Your task to perform on an android device: What's the weather today? Image 0: 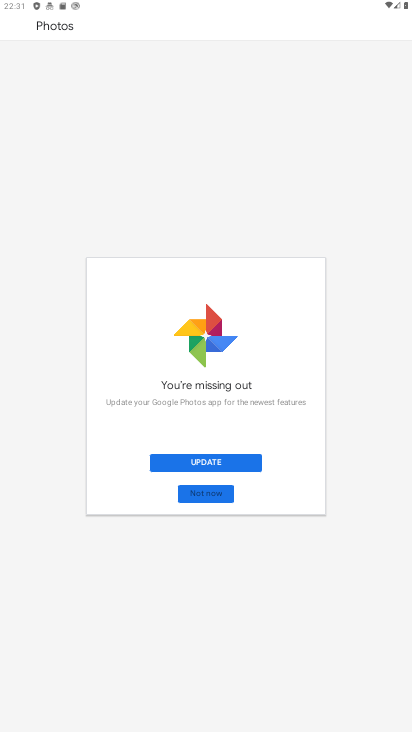
Step 0: click (213, 506)
Your task to perform on an android device: What's the weather today? Image 1: 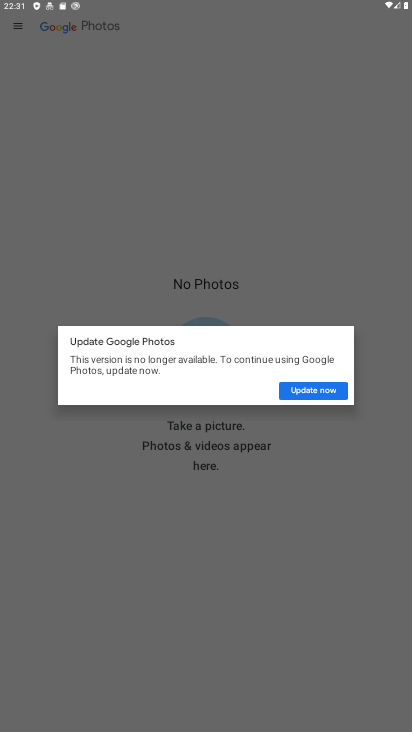
Step 1: click (200, 164)
Your task to perform on an android device: What's the weather today? Image 2: 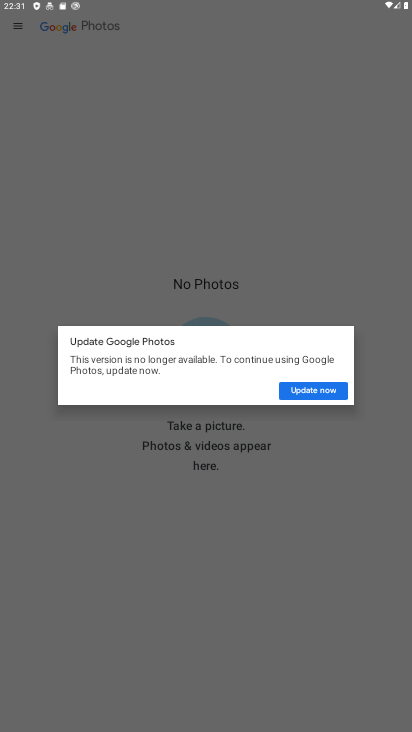
Step 2: click (157, 91)
Your task to perform on an android device: What's the weather today? Image 3: 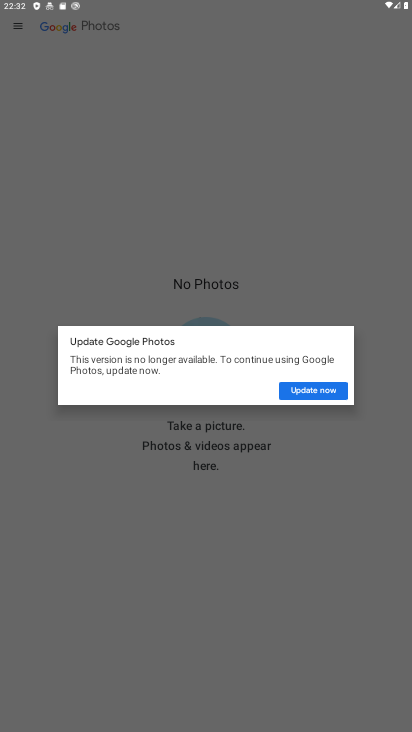
Step 3: press back button
Your task to perform on an android device: What's the weather today? Image 4: 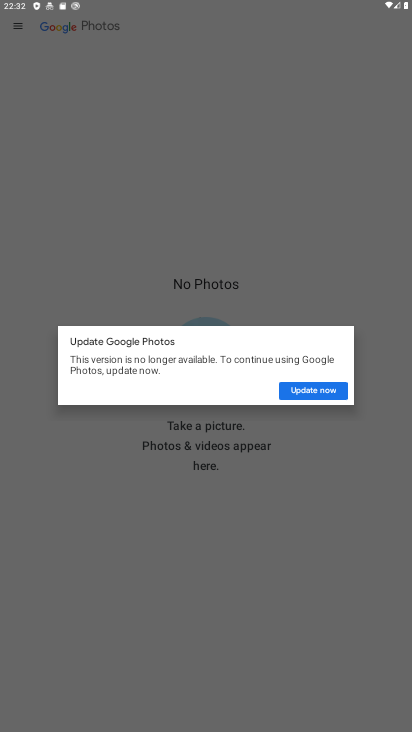
Step 4: press home button
Your task to perform on an android device: What's the weather today? Image 5: 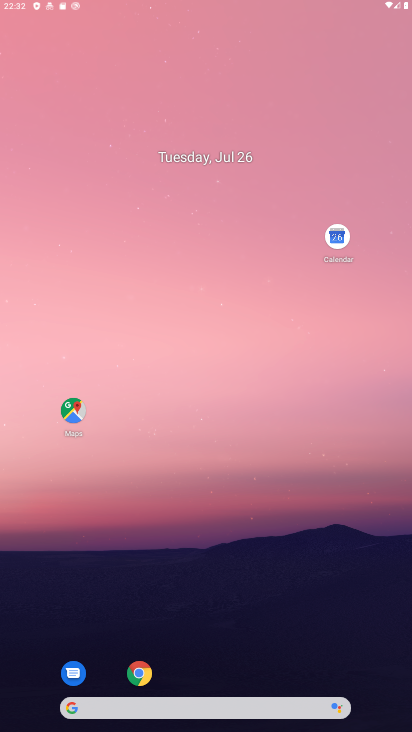
Step 5: click (73, 179)
Your task to perform on an android device: What's the weather today? Image 6: 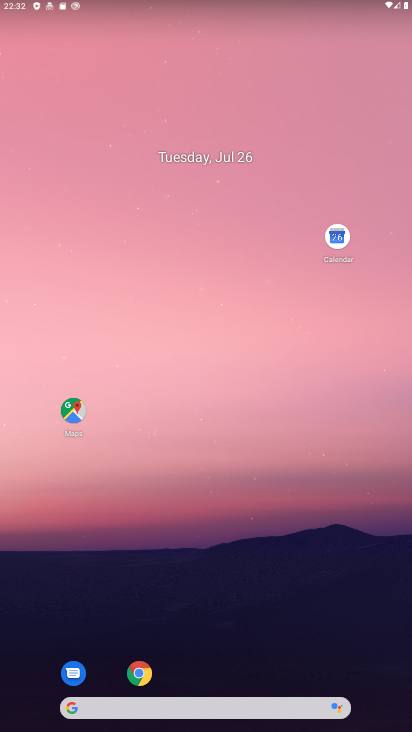
Step 6: drag from (276, 567) to (139, 39)
Your task to perform on an android device: What's the weather today? Image 7: 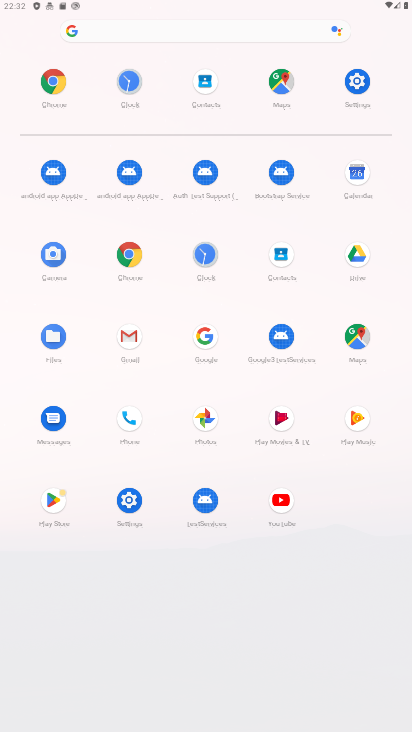
Step 7: click (48, 85)
Your task to perform on an android device: What's the weather today? Image 8: 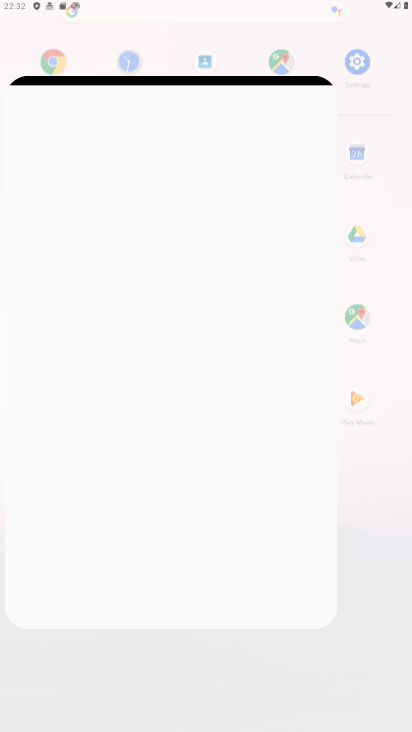
Step 8: click (47, 81)
Your task to perform on an android device: What's the weather today? Image 9: 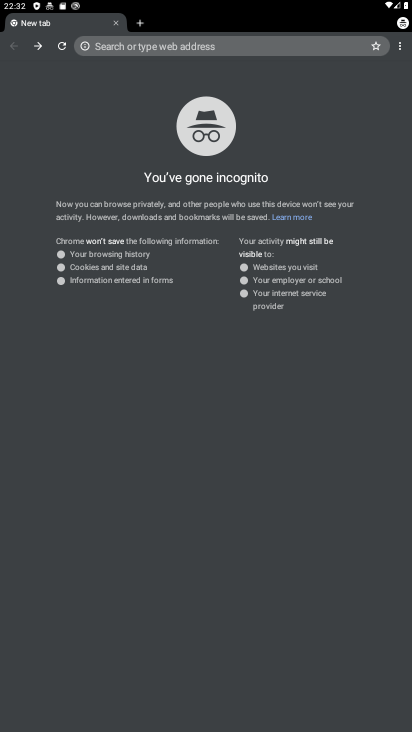
Step 9: click (47, 81)
Your task to perform on an android device: What's the weather today? Image 10: 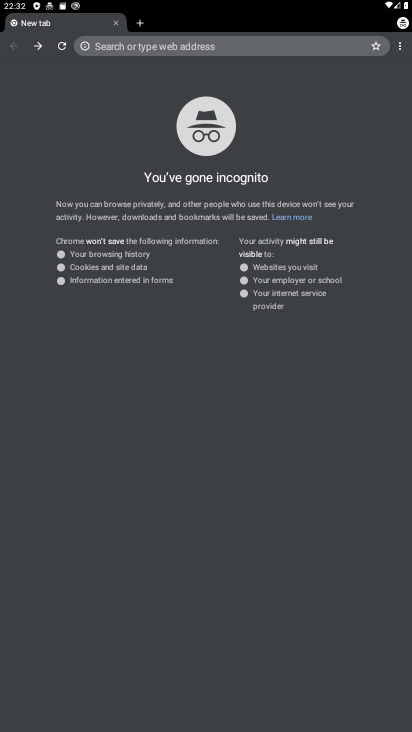
Step 10: click (114, 48)
Your task to perform on an android device: What's the weather today? Image 11: 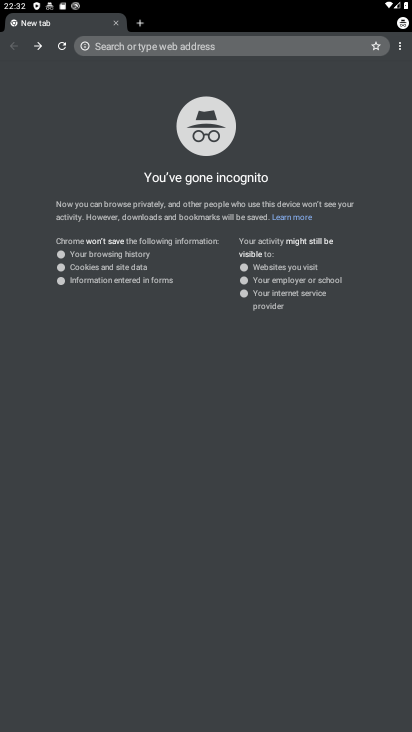
Step 11: click (114, 48)
Your task to perform on an android device: What's the weather today? Image 12: 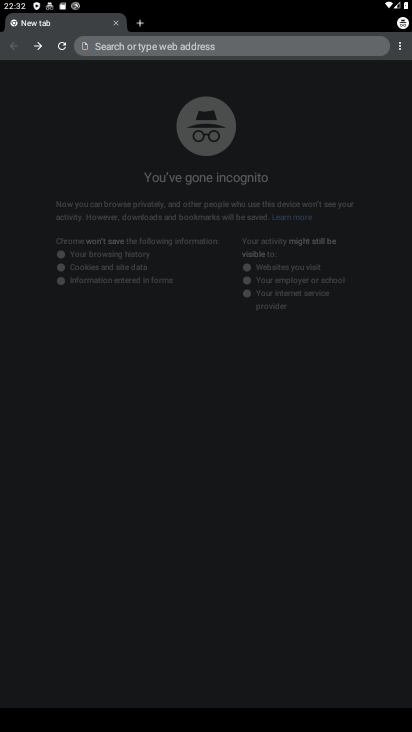
Step 12: click (118, 43)
Your task to perform on an android device: What's the weather today? Image 13: 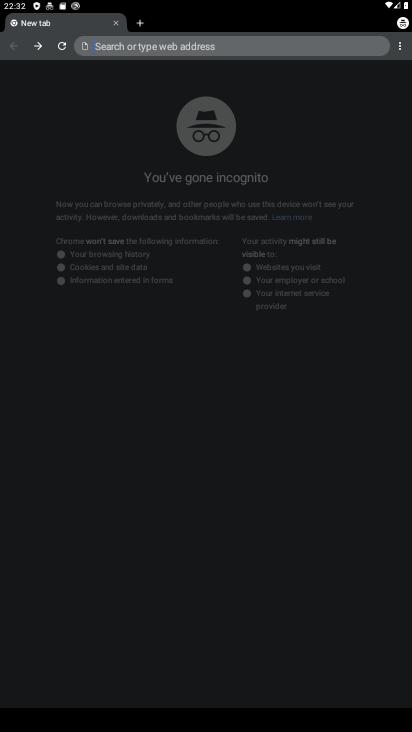
Step 13: click (112, 50)
Your task to perform on an android device: What's the weather today? Image 14: 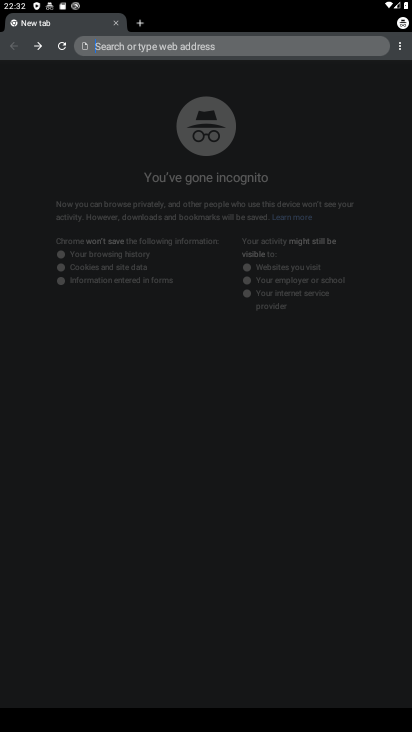
Step 14: click (101, 49)
Your task to perform on an android device: What's the weather today? Image 15: 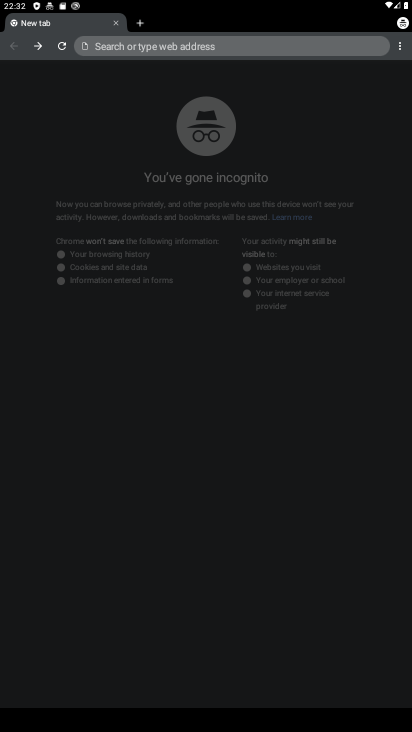
Step 15: click (100, 48)
Your task to perform on an android device: What's the weather today? Image 16: 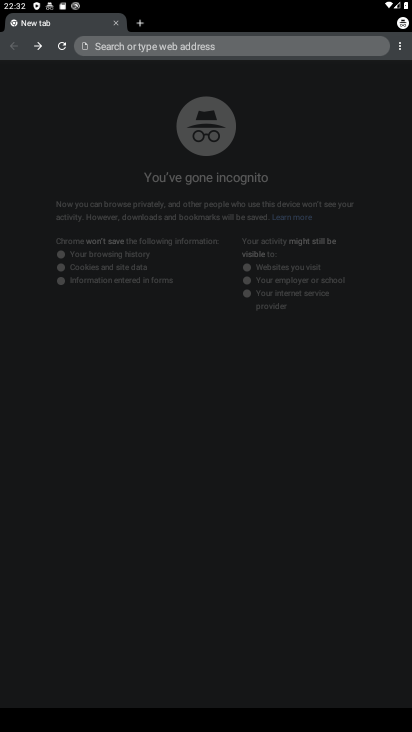
Step 16: click (101, 49)
Your task to perform on an android device: What's the weather today? Image 17: 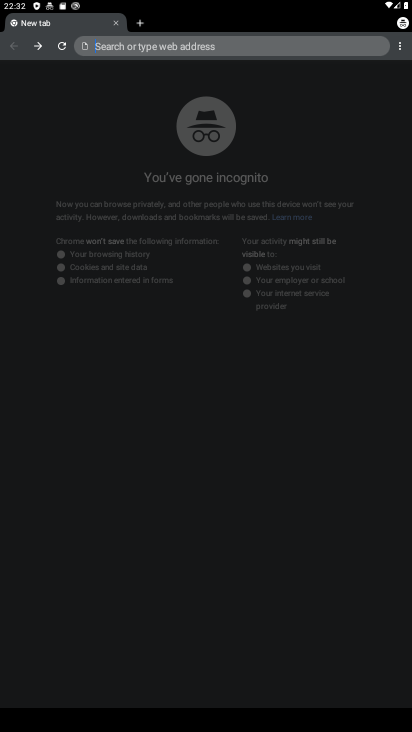
Step 17: click (105, 58)
Your task to perform on an android device: What's the weather today? Image 18: 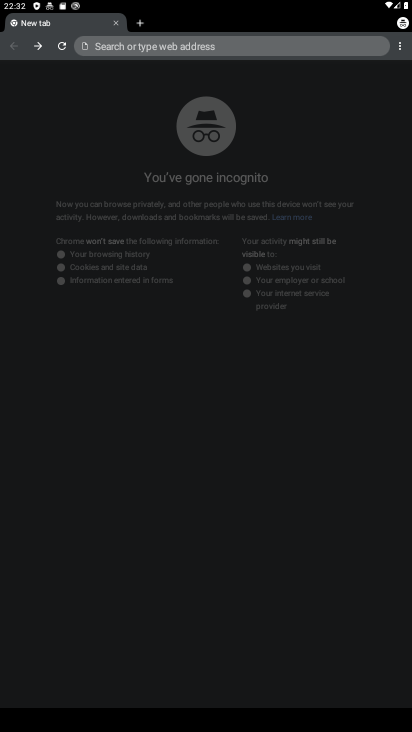
Step 18: click (135, 52)
Your task to perform on an android device: What's the weather today? Image 19: 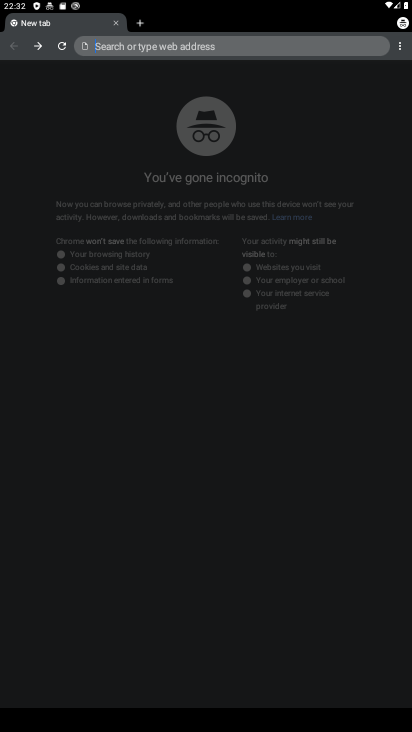
Step 19: click (135, 52)
Your task to perform on an android device: What's the weather today? Image 20: 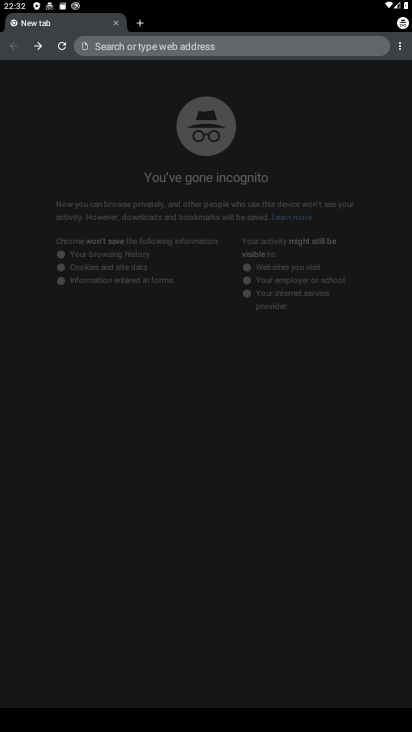
Step 20: click (391, 47)
Your task to perform on an android device: What's the weather today? Image 21: 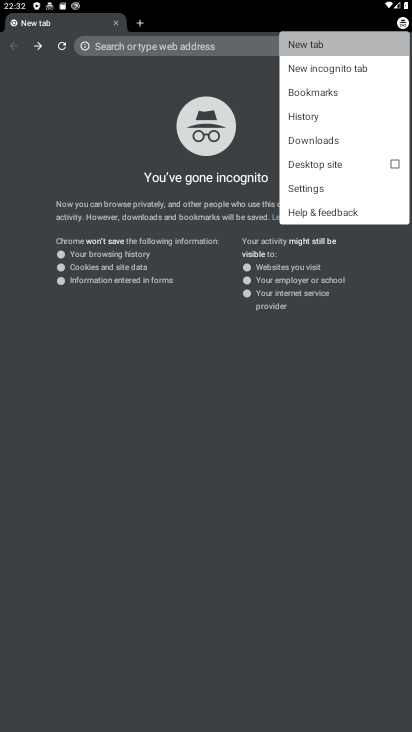
Step 21: drag from (389, 57) to (109, 58)
Your task to perform on an android device: What's the weather today? Image 22: 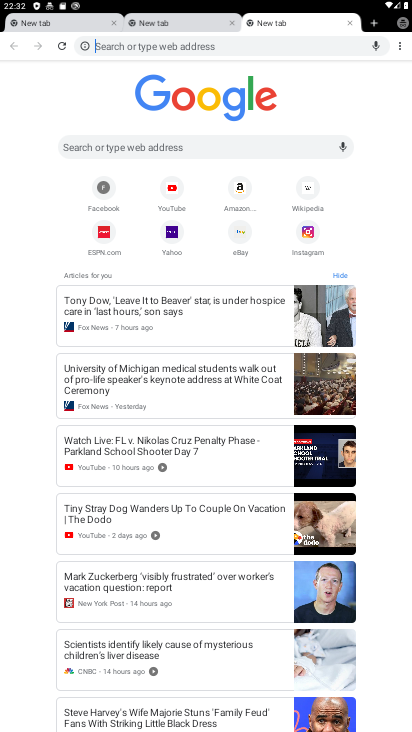
Step 22: type "weather "
Your task to perform on an android device: What's the weather today? Image 23: 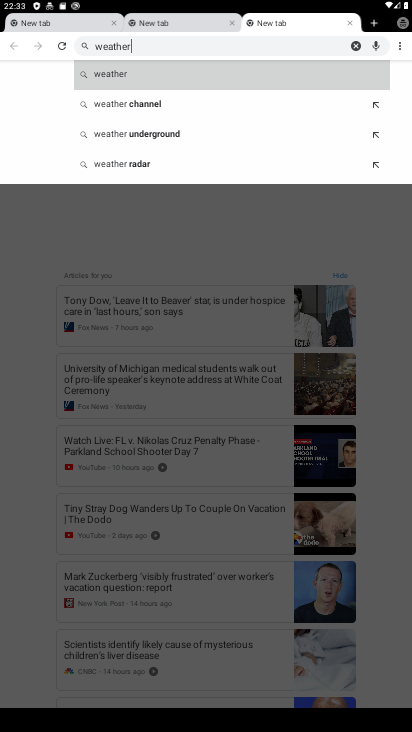
Step 23: click (126, 107)
Your task to perform on an android device: What's the weather today? Image 24: 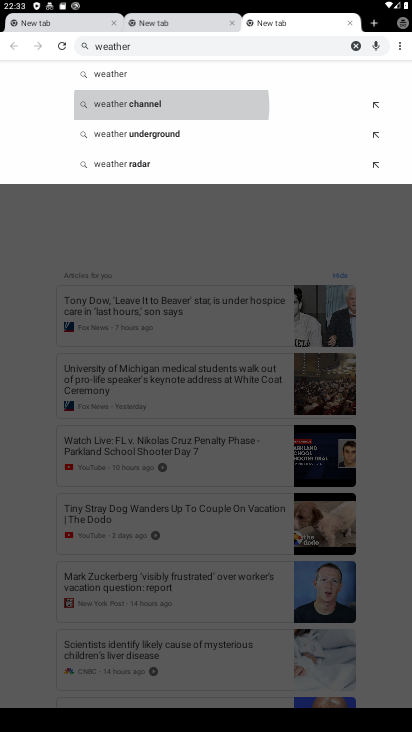
Step 24: click (126, 107)
Your task to perform on an android device: What's the weather today? Image 25: 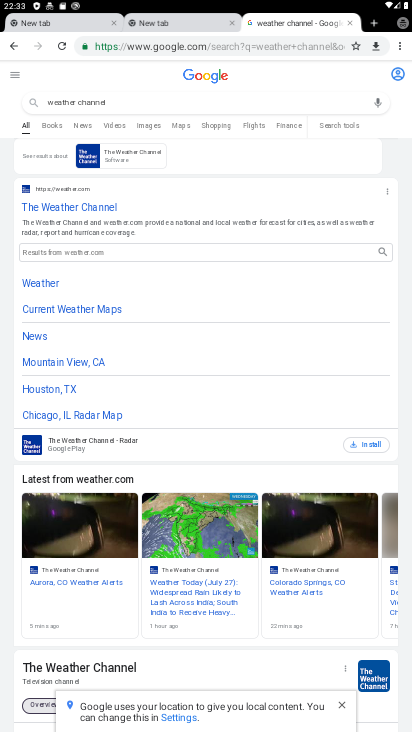
Step 25: click (122, 103)
Your task to perform on an android device: What's the weather today? Image 26: 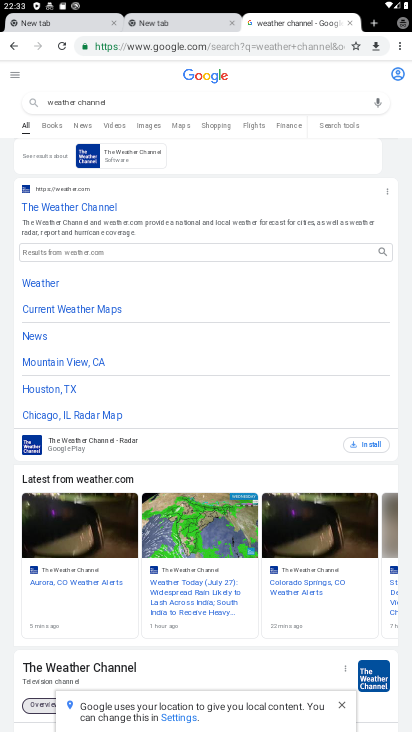
Step 26: click (123, 107)
Your task to perform on an android device: What's the weather today? Image 27: 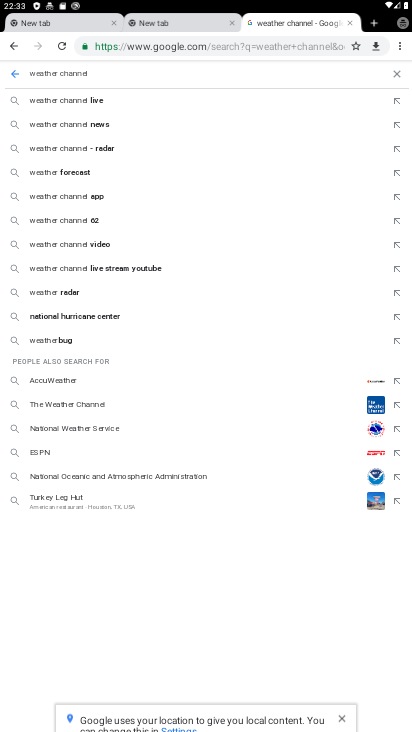
Step 27: click (76, 100)
Your task to perform on an android device: What's the weather today? Image 28: 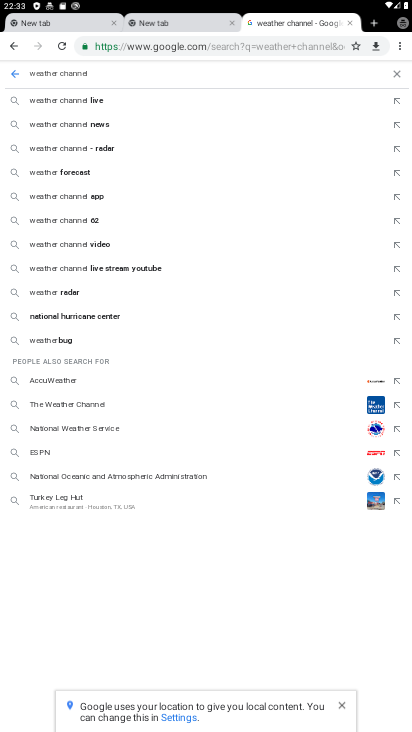
Step 28: click (76, 100)
Your task to perform on an android device: What's the weather today? Image 29: 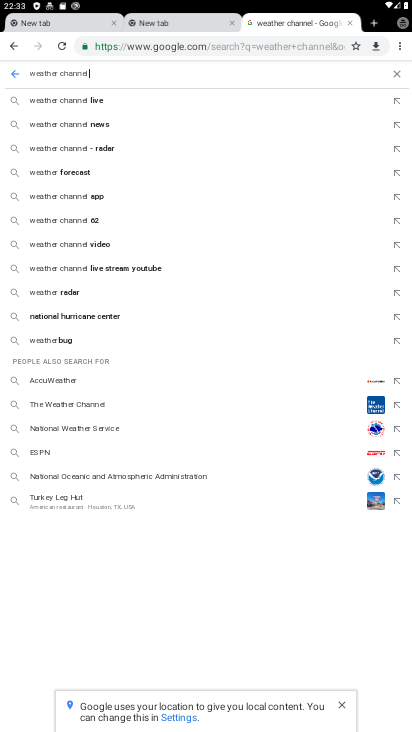
Step 29: click (76, 100)
Your task to perform on an android device: What's the weather today? Image 30: 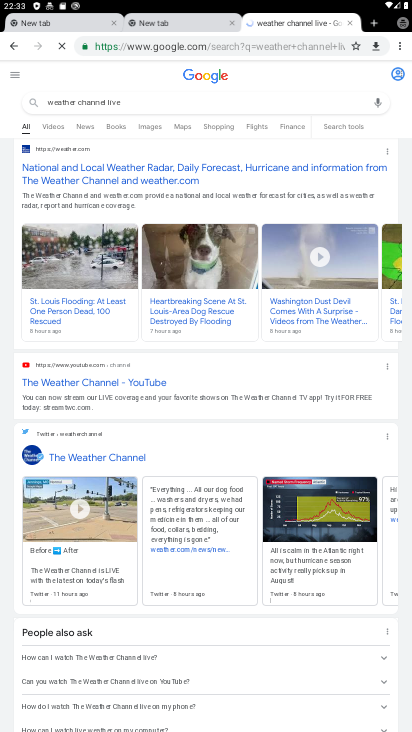
Step 30: task complete